Your task to perform on an android device: open wifi settings Image 0: 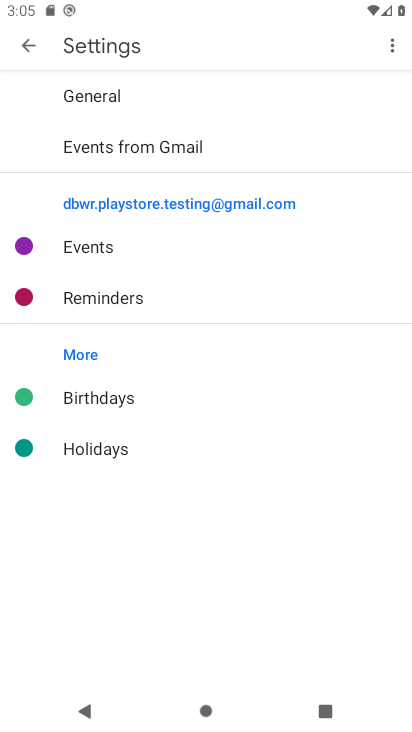
Step 0: press home button
Your task to perform on an android device: open wifi settings Image 1: 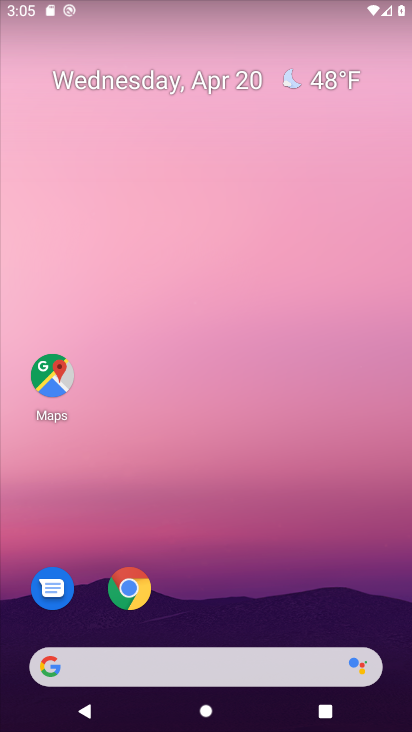
Step 1: drag from (296, 602) to (326, 154)
Your task to perform on an android device: open wifi settings Image 2: 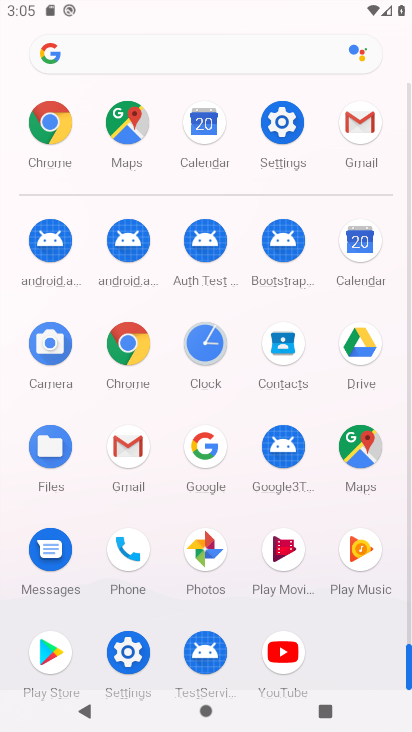
Step 2: click (285, 120)
Your task to perform on an android device: open wifi settings Image 3: 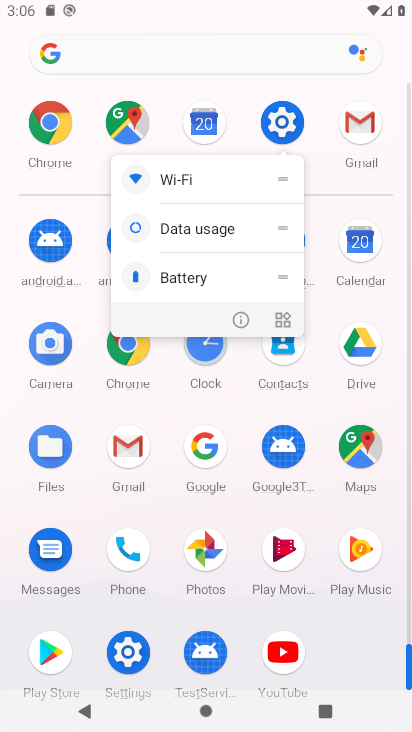
Step 3: click (283, 122)
Your task to perform on an android device: open wifi settings Image 4: 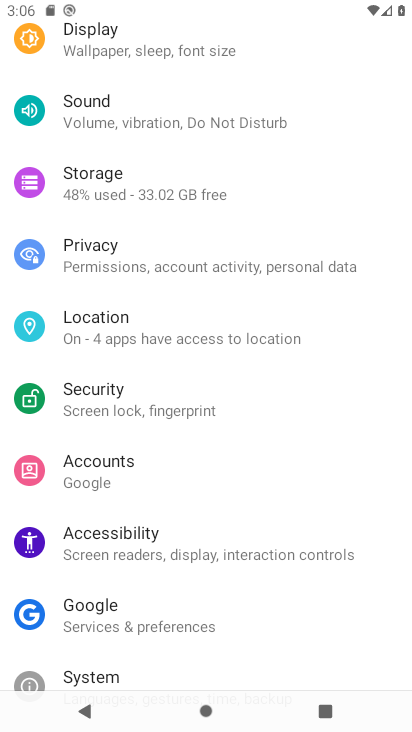
Step 4: drag from (359, 626) to (377, 429)
Your task to perform on an android device: open wifi settings Image 5: 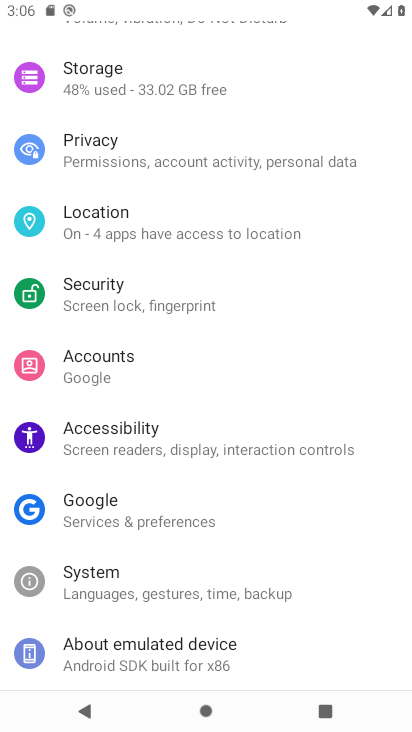
Step 5: drag from (364, 320) to (363, 512)
Your task to perform on an android device: open wifi settings Image 6: 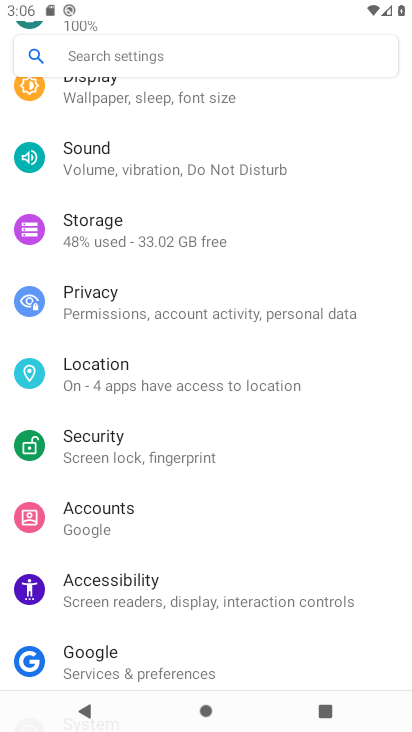
Step 6: drag from (371, 307) to (361, 489)
Your task to perform on an android device: open wifi settings Image 7: 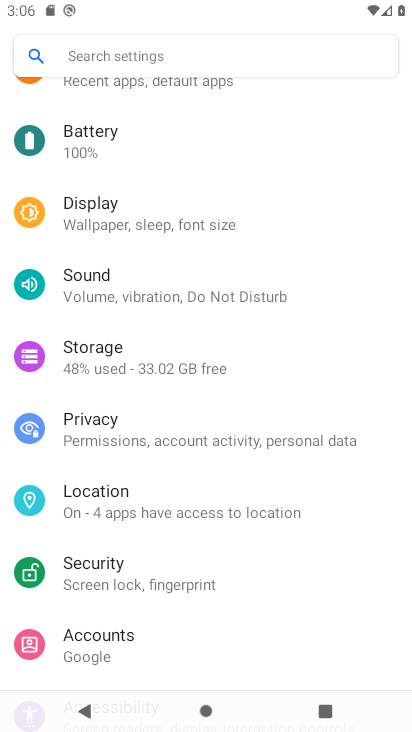
Step 7: drag from (371, 309) to (362, 523)
Your task to perform on an android device: open wifi settings Image 8: 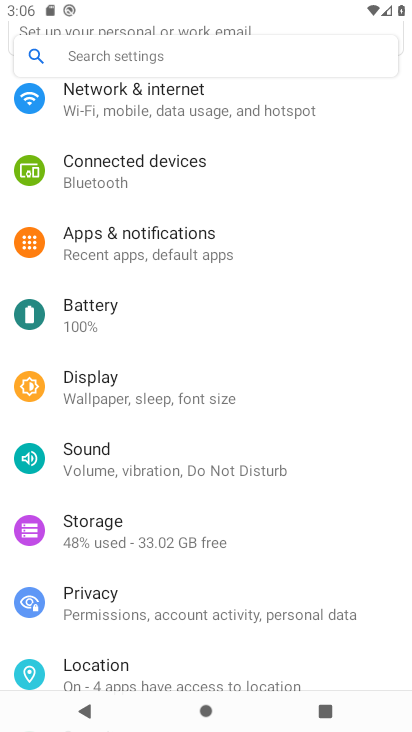
Step 8: drag from (363, 287) to (355, 475)
Your task to perform on an android device: open wifi settings Image 9: 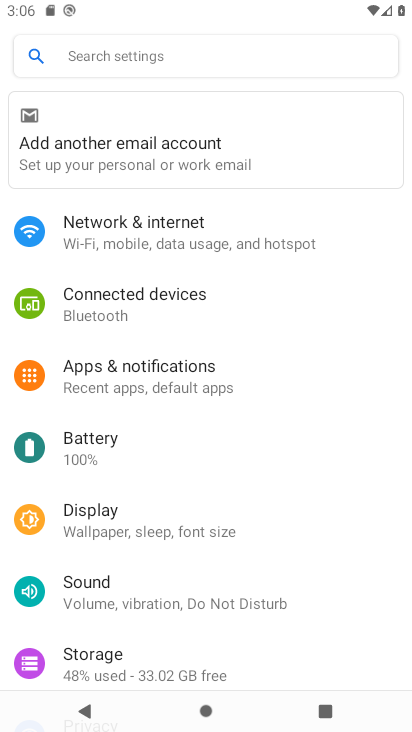
Step 9: drag from (355, 255) to (347, 432)
Your task to perform on an android device: open wifi settings Image 10: 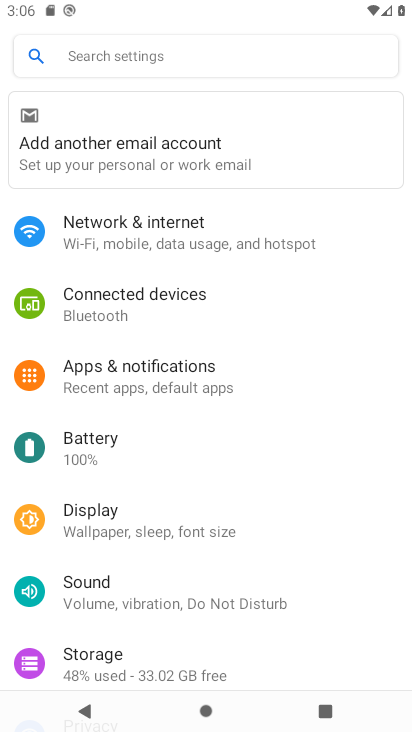
Step 10: click (255, 232)
Your task to perform on an android device: open wifi settings Image 11: 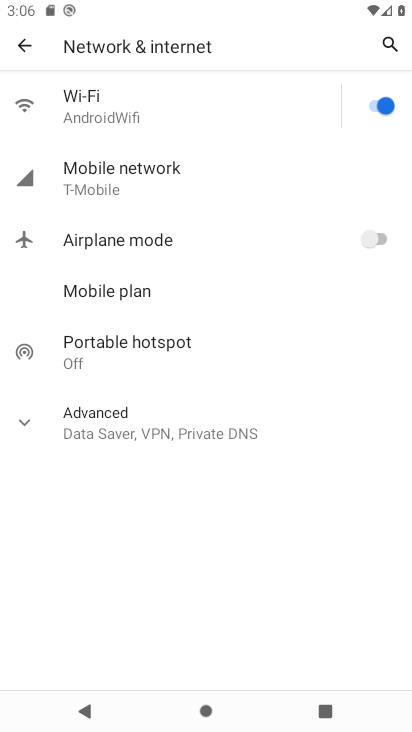
Step 11: click (121, 95)
Your task to perform on an android device: open wifi settings Image 12: 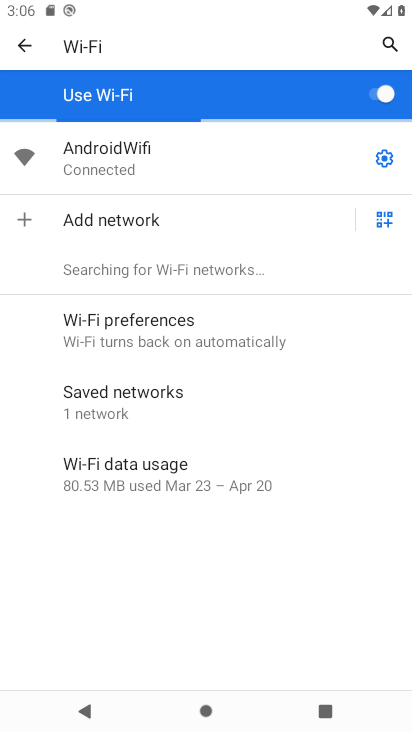
Step 12: task complete